Your task to perform on an android device: Go to Google Image 0: 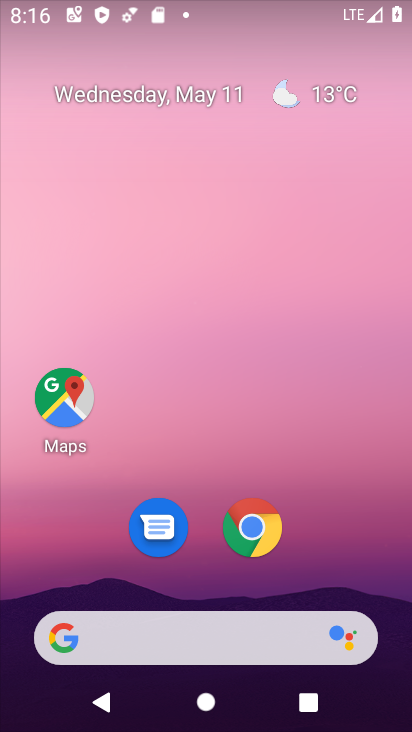
Step 0: drag from (96, 622) to (194, 149)
Your task to perform on an android device: Go to Google Image 1: 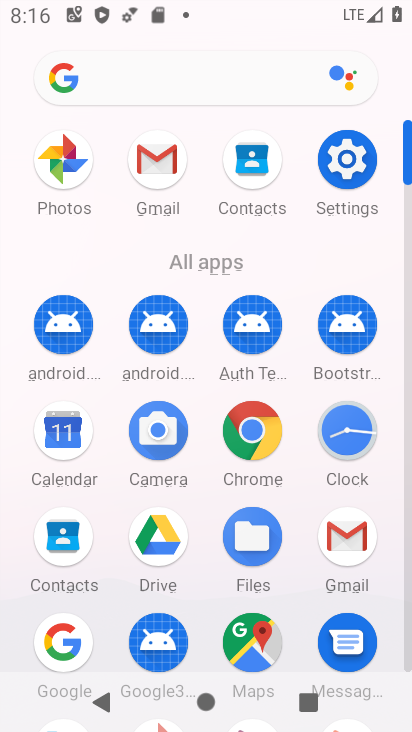
Step 1: click (70, 629)
Your task to perform on an android device: Go to Google Image 2: 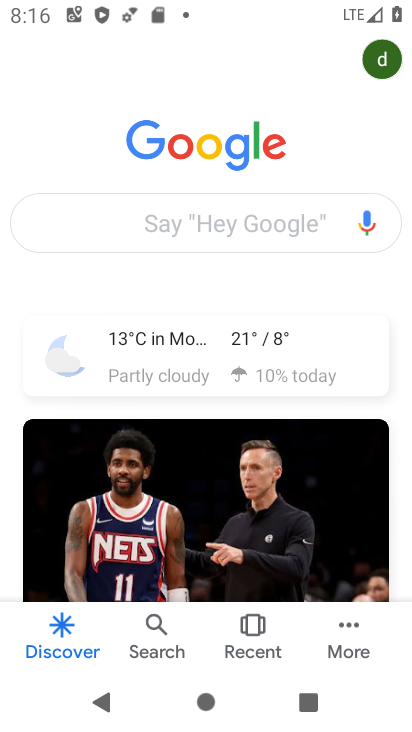
Step 2: task complete